Your task to perform on an android device: Open sound settings Image 0: 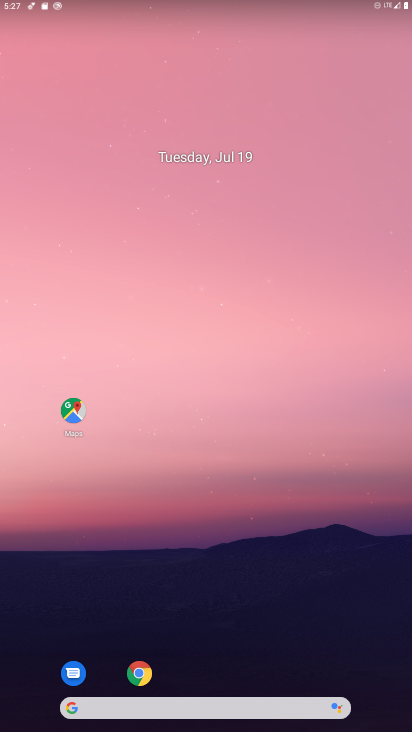
Step 0: press home button
Your task to perform on an android device: Open sound settings Image 1: 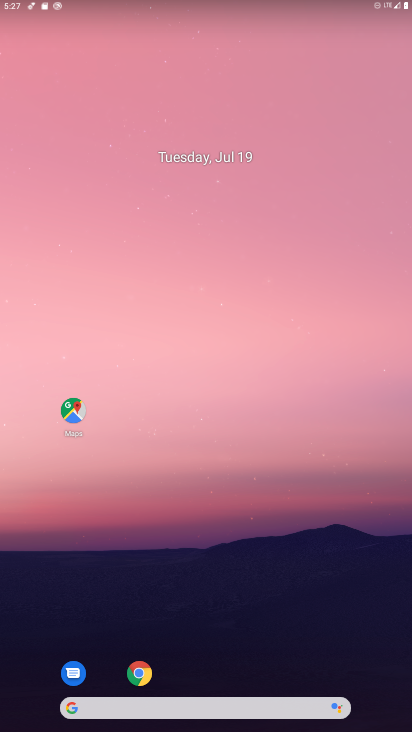
Step 1: drag from (215, 678) to (224, 33)
Your task to perform on an android device: Open sound settings Image 2: 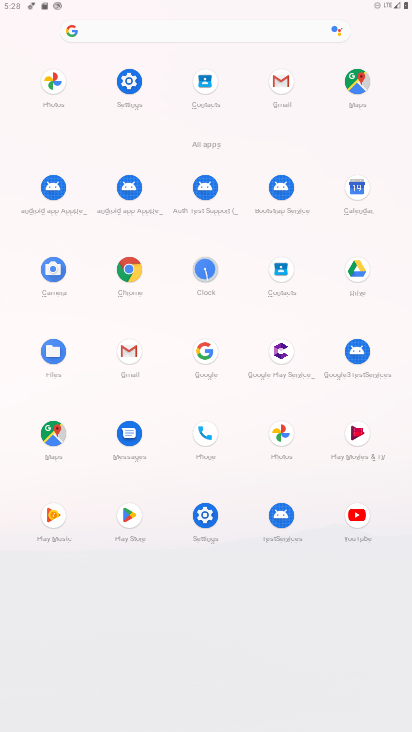
Step 2: click (126, 78)
Your task to perform on an android device: Open sound settings Image 3: 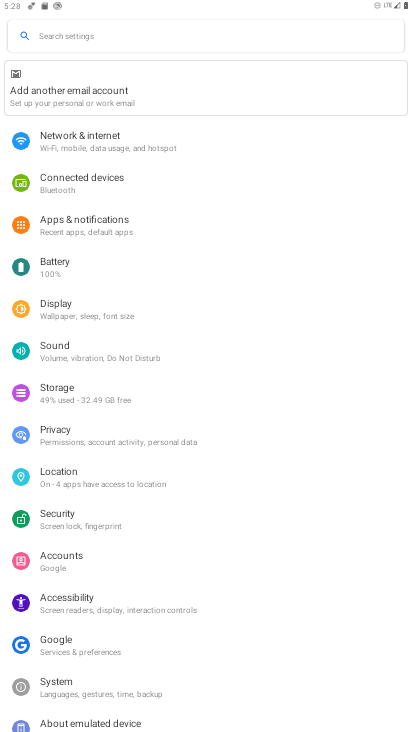
Step 3: click (76, 349)
Your task to perform on an android device: Open sound settings Image 4: 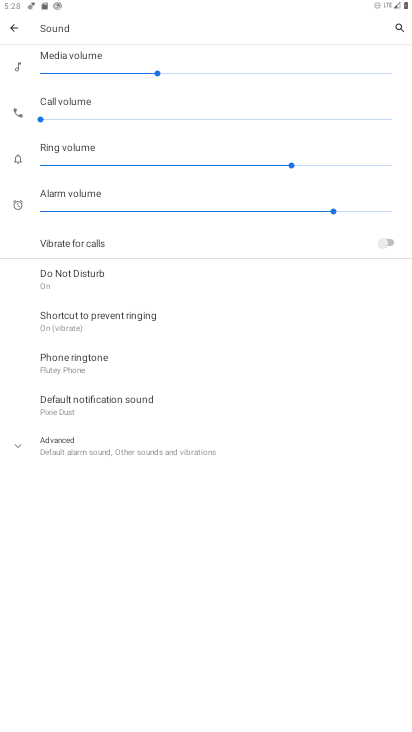
Step 4: click (17, 443)
Your task to perform on an android device: Open sound settings Image 5: 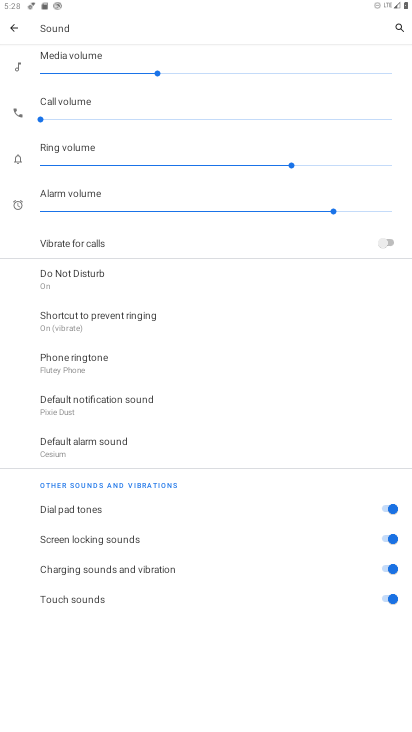
Step 5: task complete